Your task to perform on an android device: see creations saved in the google photos Image 0: 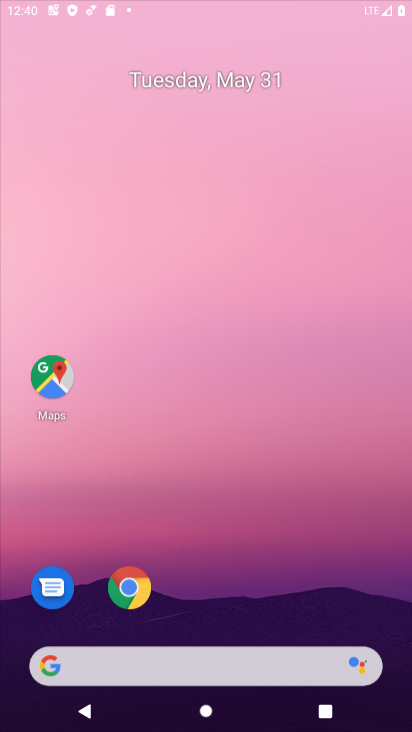
Step 0: press home button
Your task to perform on an android device: see creations saved in the google photos Image 1: 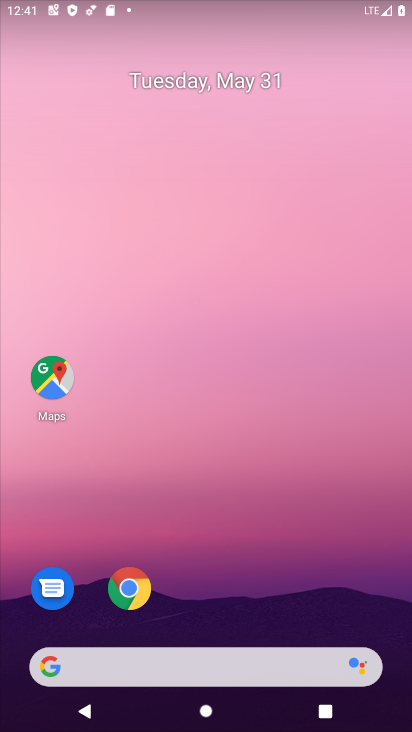
Step 1: drag from (232, 619) to (224, 69)
Your task to perform on an android device: see creations saved in the google photos Image 2: 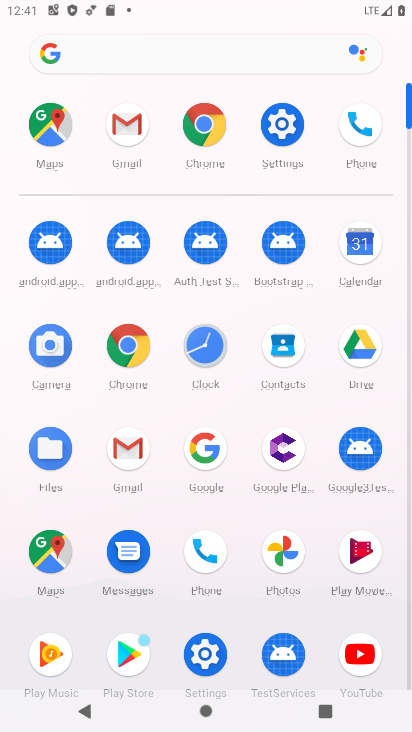
Step 2: click (279, 545)
Your task to perform on an android device: see creations saved in the google photos Image 3: 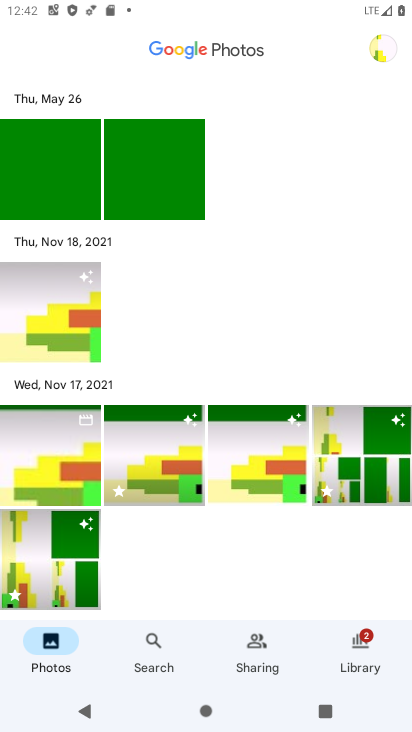
Step 3: click (154, 645)
Your task to perform on an android device: see creations saved in the google photos Image 4: 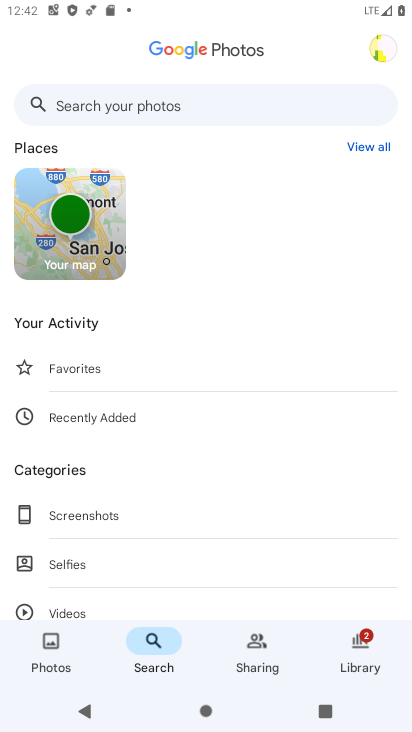
Step 4: drag from (119, 560) to (160, 207)
Your task to perform on an android device: see creations saved in the google photos Image 5: 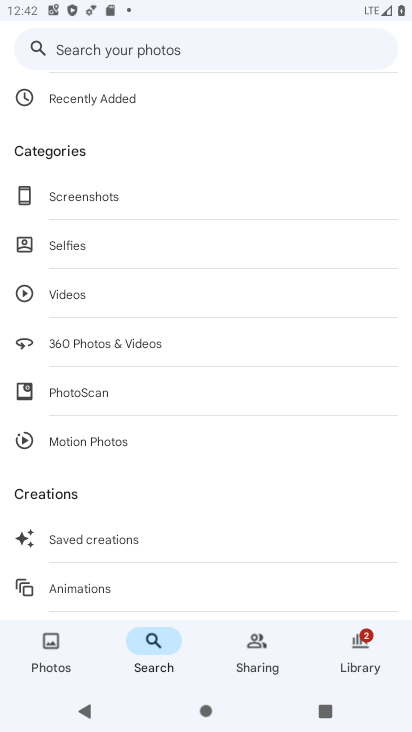
Step 5: click (92, 544)
Your task to perform on an android device: see creations saved in the google photos Image 6: 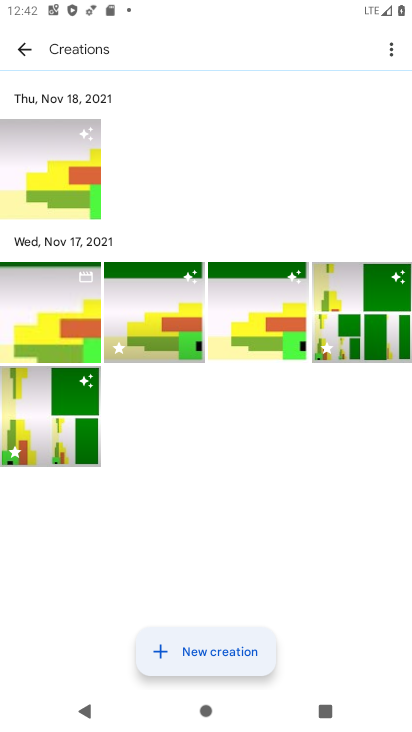
Step 6: task complete